Your task to perform on an android device: Toggle the flashlight Image 0: 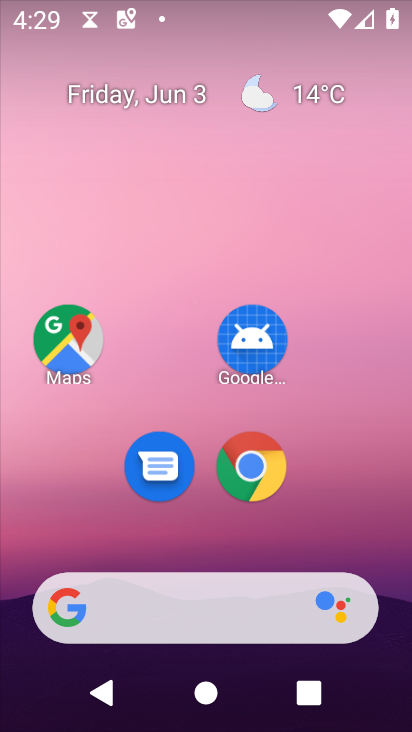
Step 0: drag from (350, 532) to (347, 493)
Your task to perform on an android device: Toggle the flashlight Image 1: 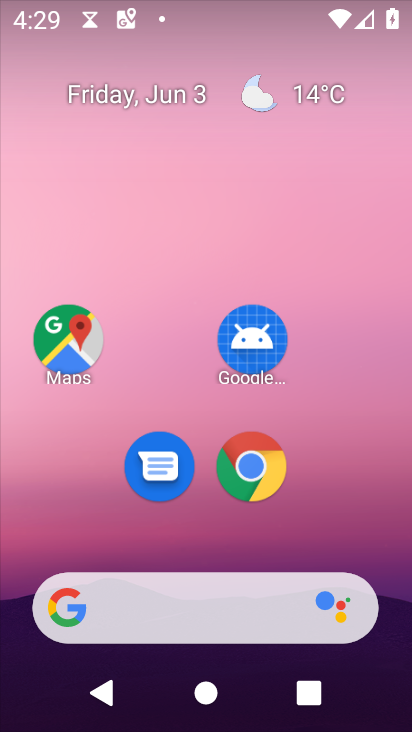
Step 1: drag from (369, 530) to (382, 167)
Your task to perform on an android device: Toggle the flashlight Image 2: 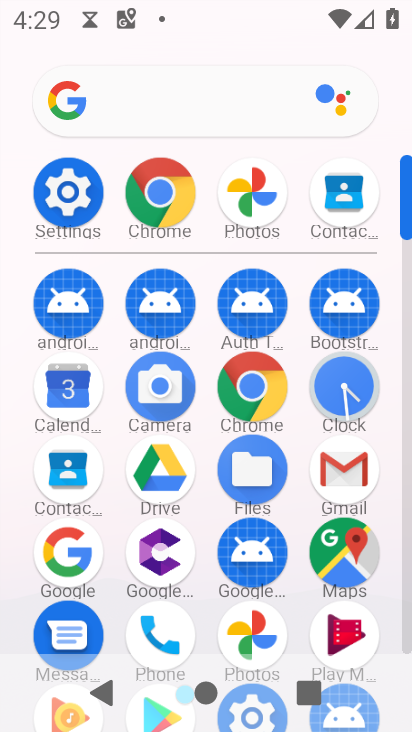
Step 2: click (59, 195)
Your task to perform on an android device: Toggle the flashlight Image 3: 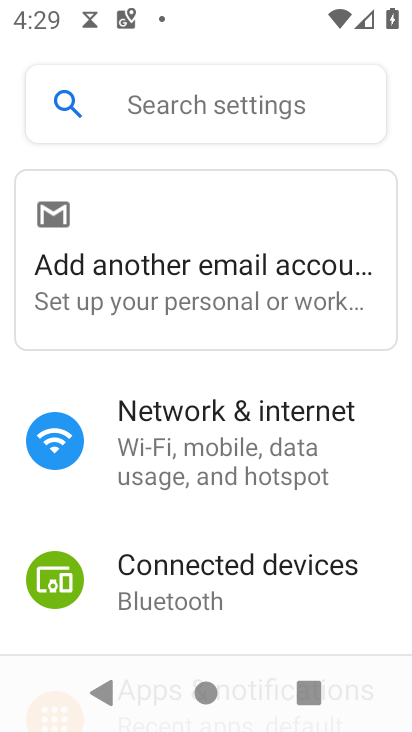
Step 3: drag from (254, 628) to (217, 457)
Your task to perform on an android device: Toggle the flashlight Image 4: 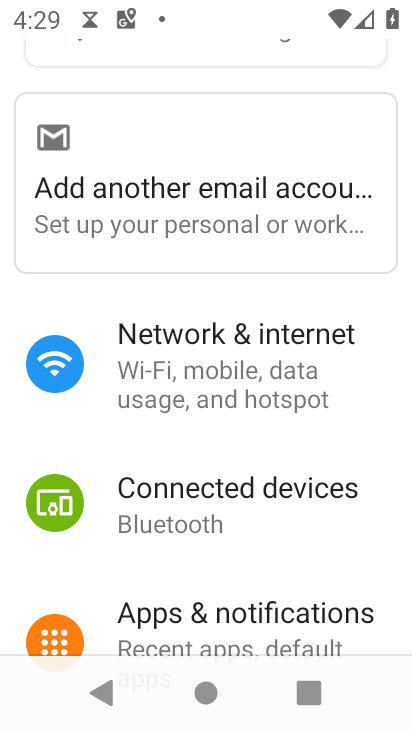
Step 4: drag from (384, 564) to (390, 338)
Your task to perform on an android device: Toggle the flashlight Image 5: 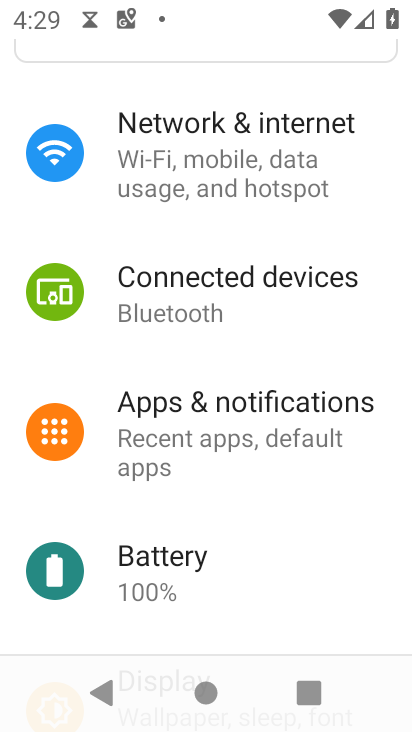
Step 5: drag from (312, 582) to (307, 207)
Your task to perform on an android device: Toggle the flashlight Image 6: 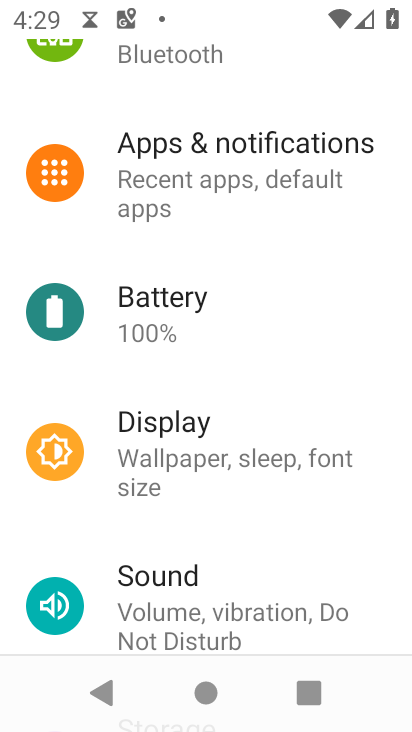
Step 6: click (215, 427)
Your task to perform on an android device: Toggle the flashlight Image 7: 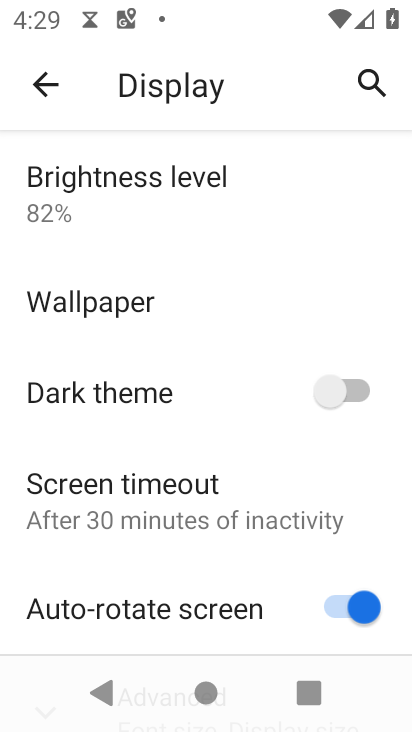
Step 7: drag from (245, 623) to (246, 460)
Your task to perform on an android device: Toggle the flashlight Image 8: 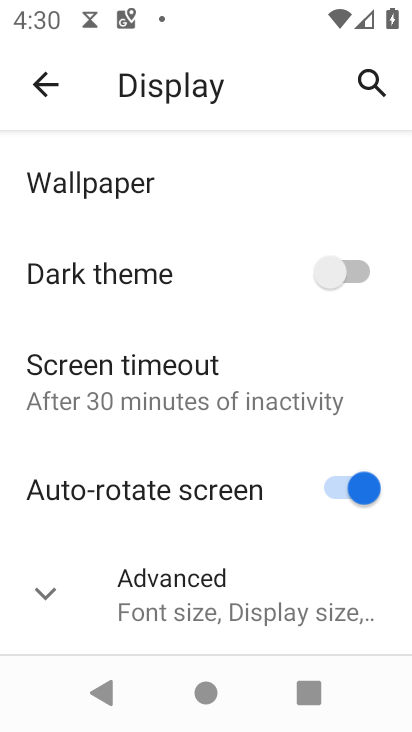
Step 8: click (206, 597)
Your task to perform on an android device: Toggle the flashlight Image 9: 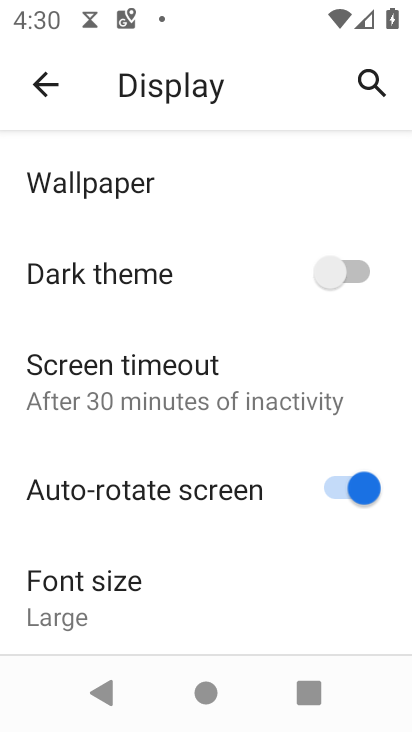
Step 9: task complete